Your task to perform on an android device: check storage Image 0: 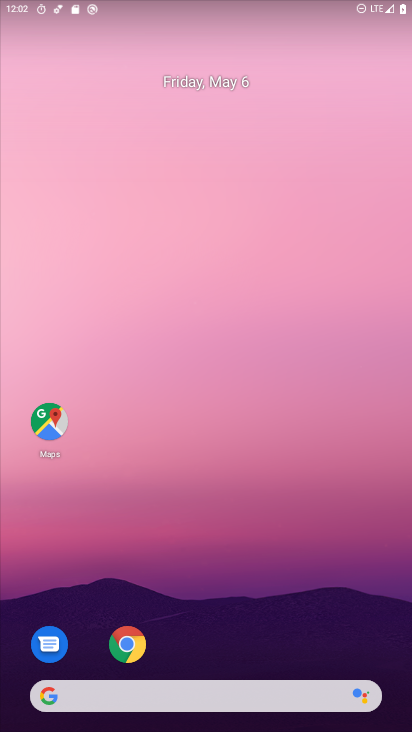
Step 0: drag from (343, 629) to (327, 95)
Your task to perform on an android device: check storage Image 1: 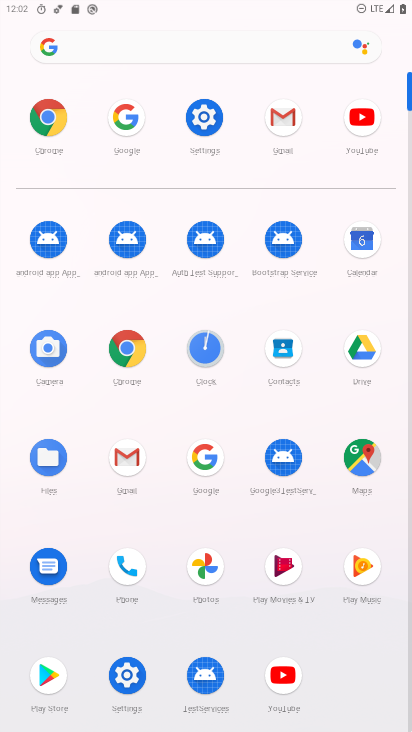
Step 1: click (126, 685)
Your task to perform on an android device: check storage Image 2: 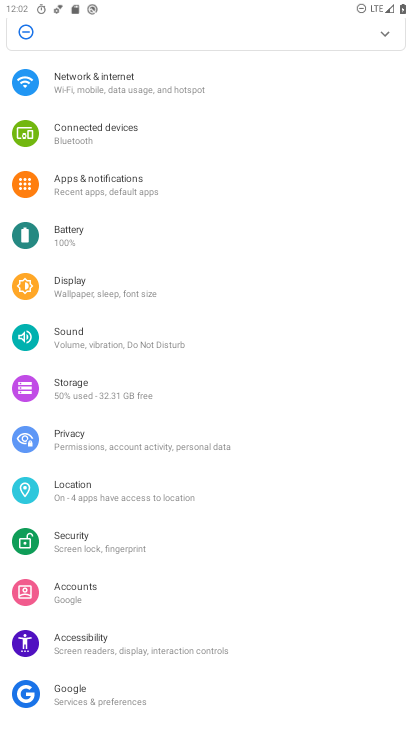
Step 2: click (71, 391)
Your task to perform on an android device: check storage Image 3: 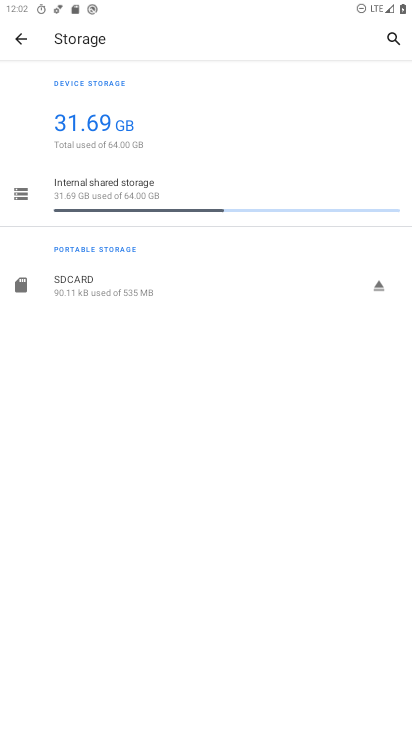
Step 3: click (27, 199)
Your task to perform on an android device: check storage Image 4: 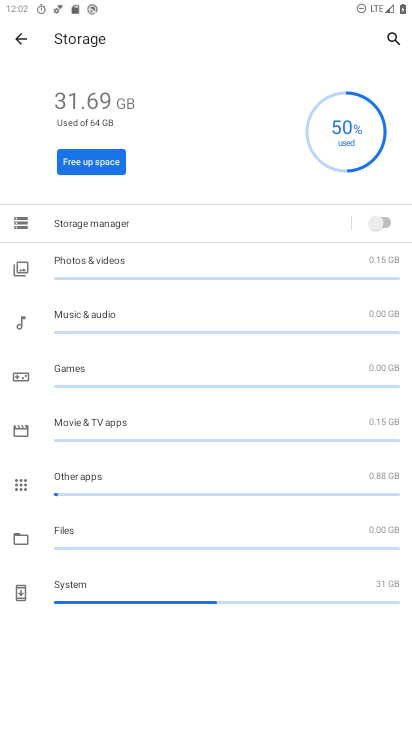
Step 4: task complete